Your task to perform on an android device: open device folders in google photos Image 0: 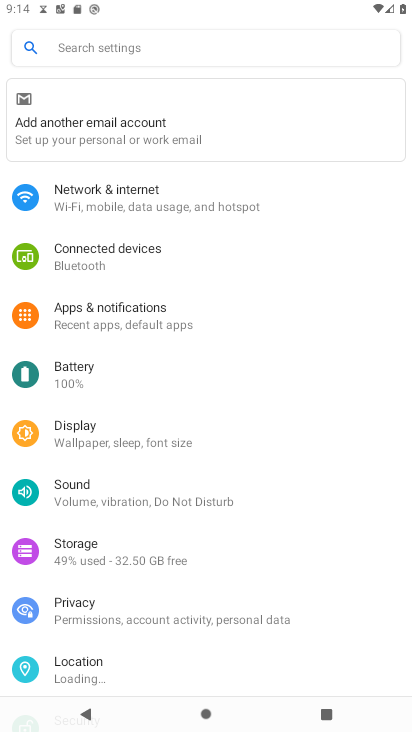
Step 0: press home button
Your task to perform on an android device: open device folders in google photos Image 1: 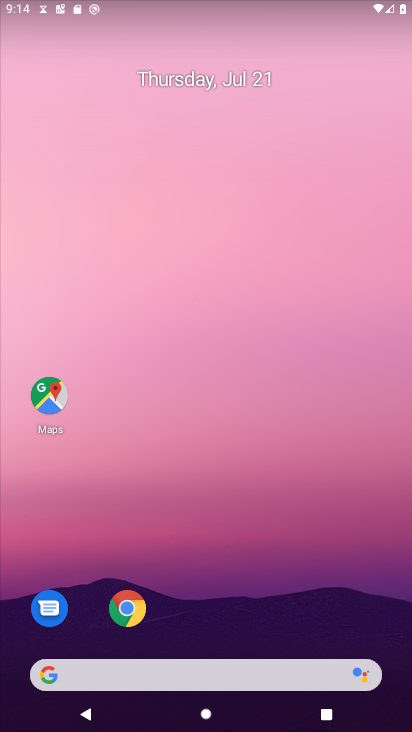
Step 1: drag from (167, 624) to (152, 281)
Your task to perform on an android device: open device folders in google photos Image 2: 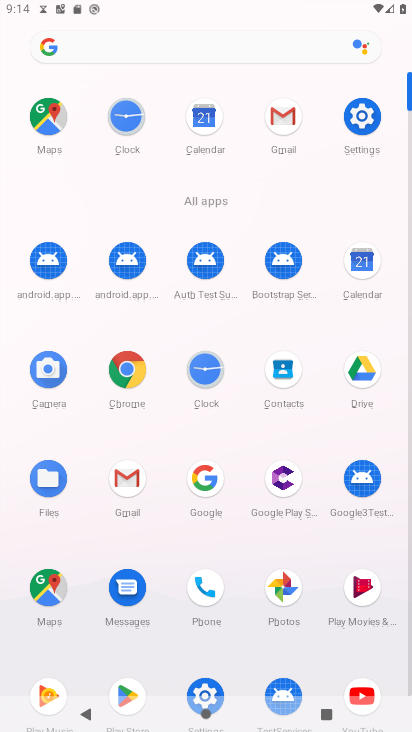
Step 2: click (272, 595)
Your task to perform on an android device: open device folders in google photos Image 3: 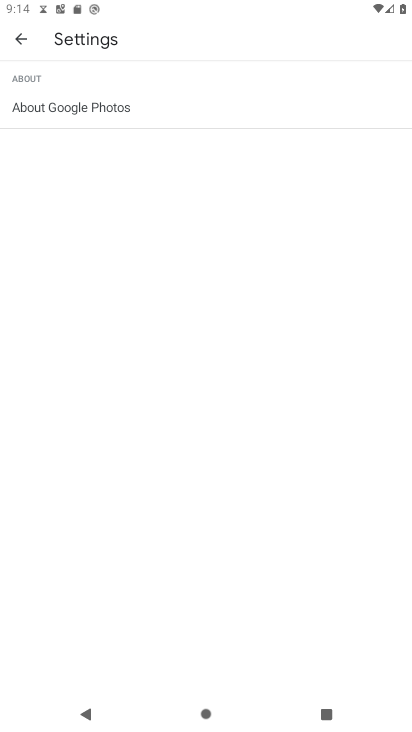
Step 3: click (23, 39)
Your task to perform on an android device: open device folders in google photos Image 4: 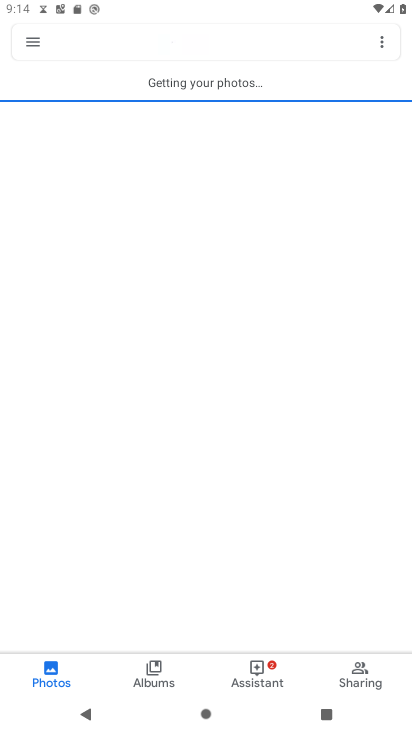
Step 4: click (34, 42)
Your task to perform on an android device: open device folders in google photos Image 5: 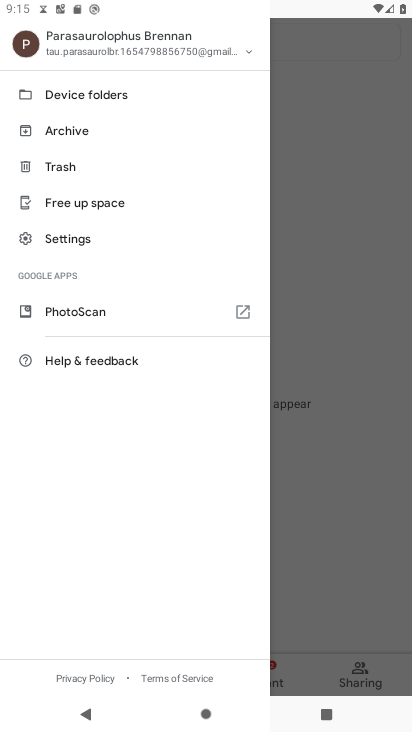
Step 5: click (69, 96)
Your task to perform on an android device: open device folders in google photos Image 6: 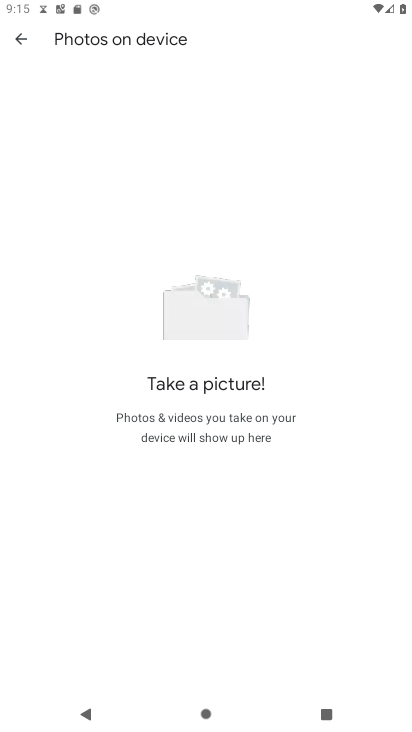
Step 6: task complete